Your task to perform on an android device: delete location history Image 0: 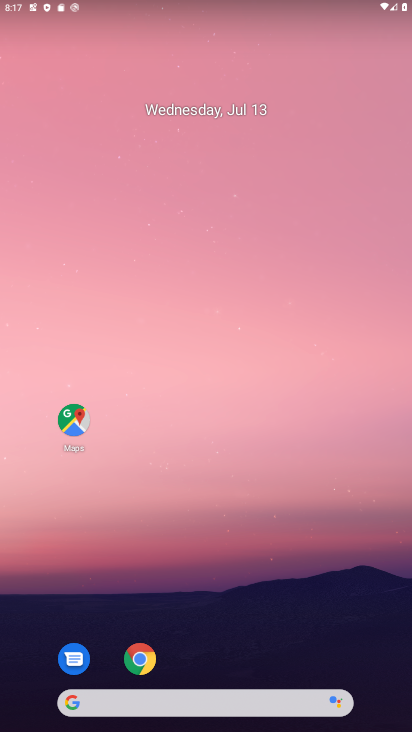
Step 0: click (70, 441)
Your task to perform on an android device: delete location history Image 1: 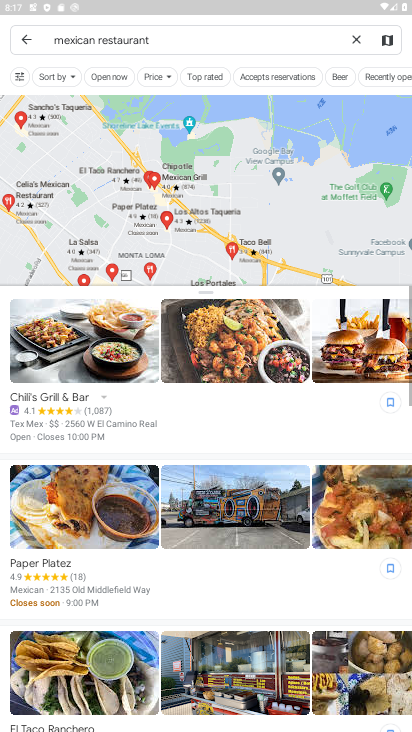
Step 1: click (29, 46)
Your task to perform on an android device: delete location history Image 2: 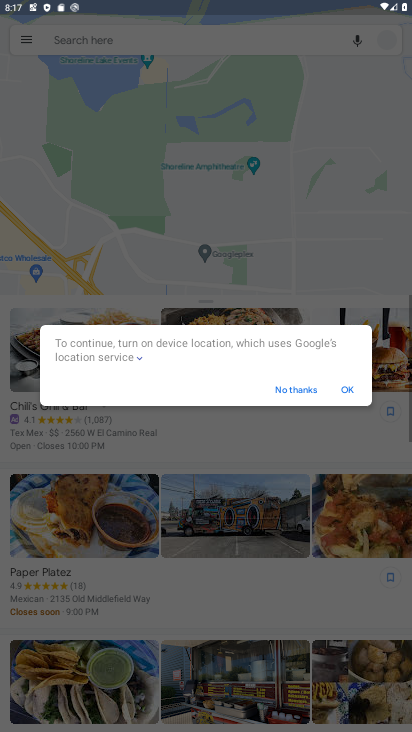
Step 2: click (345, 386)
Your task to perform on an android device: delete location history Image 3: 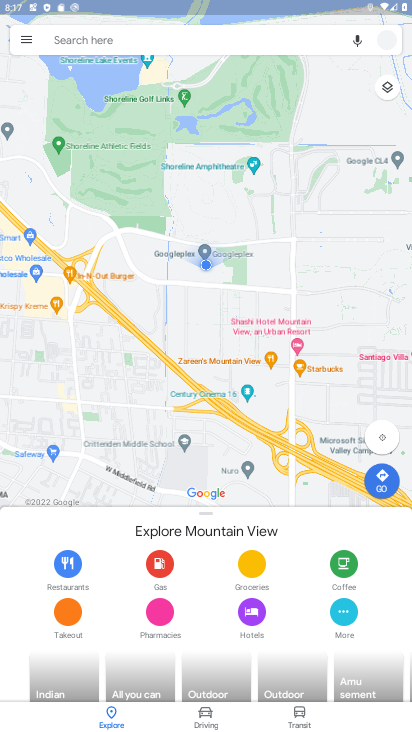
Step 3: click (35, 35)
Your task to perform on an android device: delete location history Image 4: 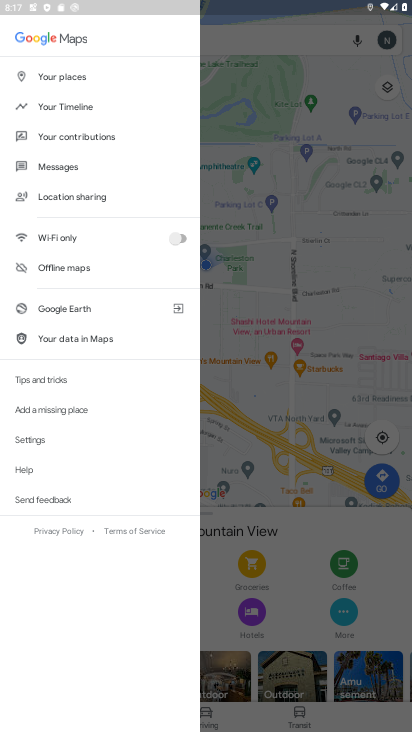
Step 4: click (71, 103)
Your task to perform on an android device: delete location history Image 5: 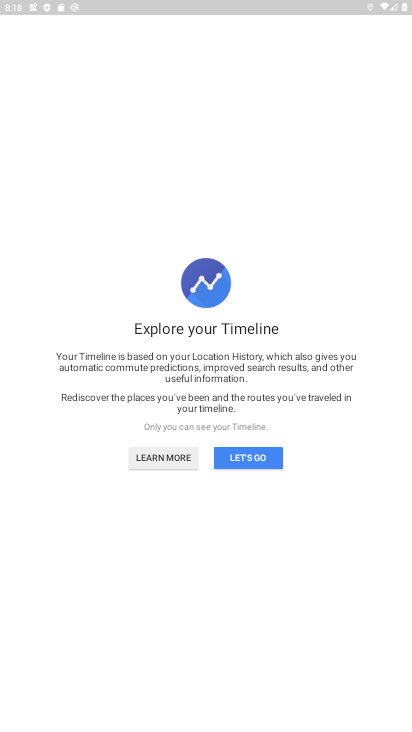
Step 5: click (245, 453)
Your task to perform on an android device: delete location history Image 6: 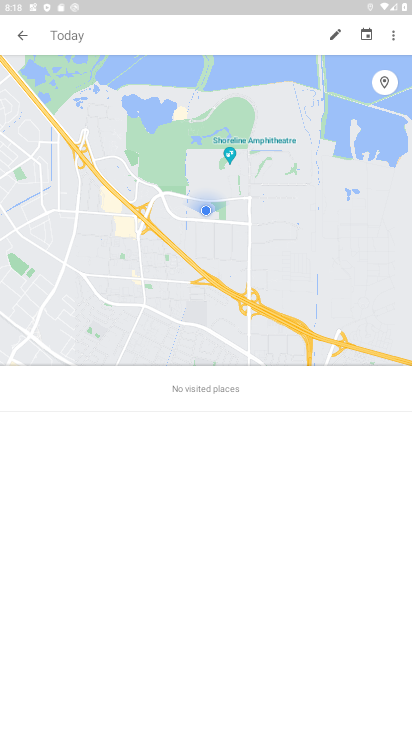
Step 6: click (392, 37)
Your task to perform on an android device: delete location history Image 7: 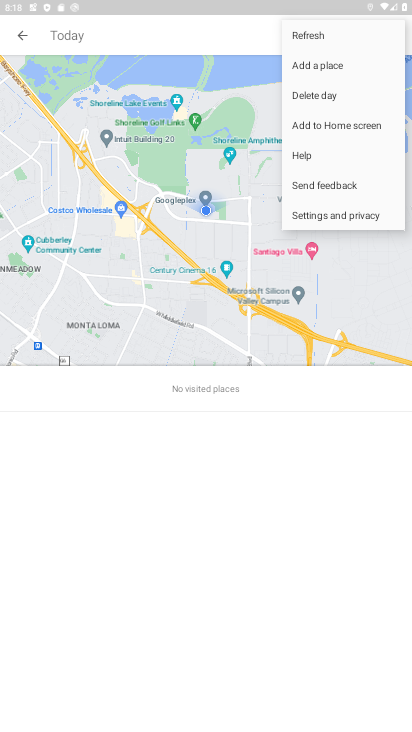
Step 7: click (343, 209)
Your task to perform on an android device: delete location history Image 8: 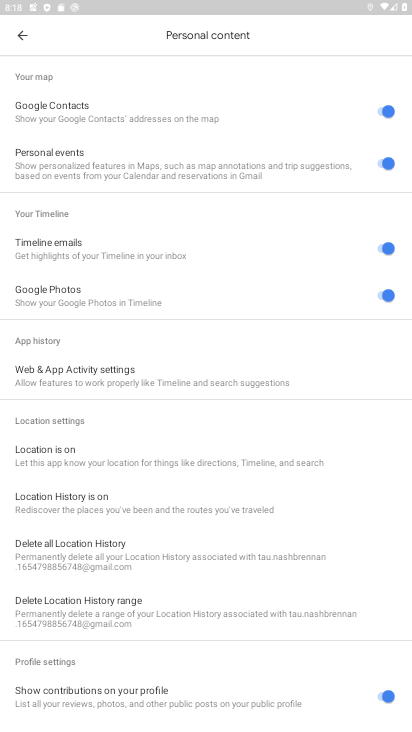
Step 8: click (170, 553)
Your task to perform on an android device: delete location history Image 9: 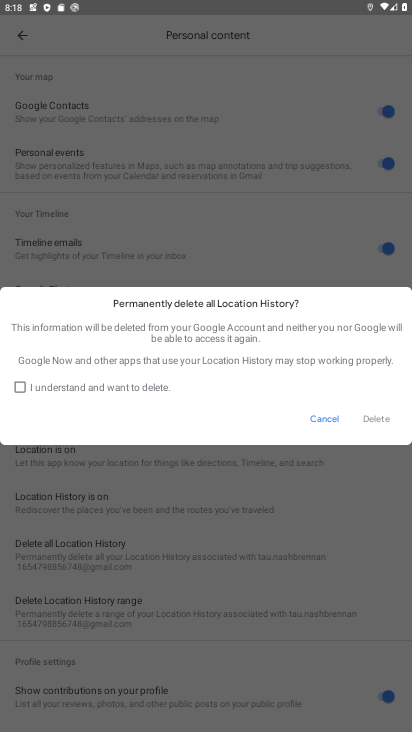
Step 9: click (94, 391)
Your task to perform on an android device: delete location history Image 10: 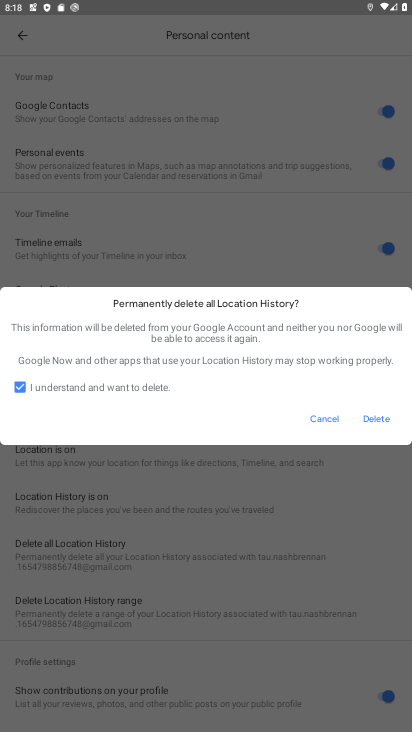
Step 10: click (383, 418)
Your task to perform on an android device: delete location history Image 11: 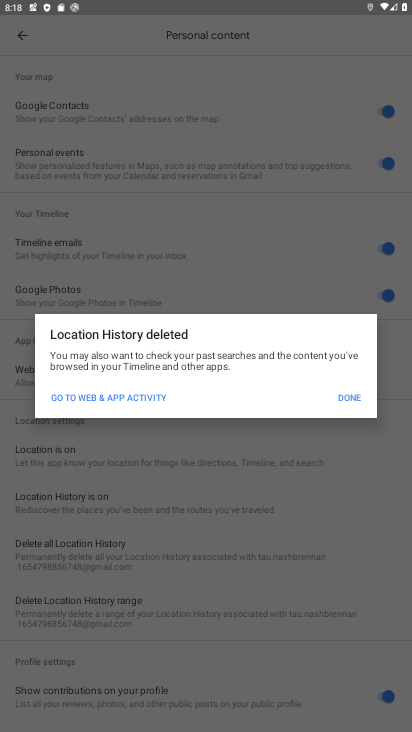
Step 11: task complete